Your task to perform on an android device: open the mobile data screen to see how much data has been used Image 0: 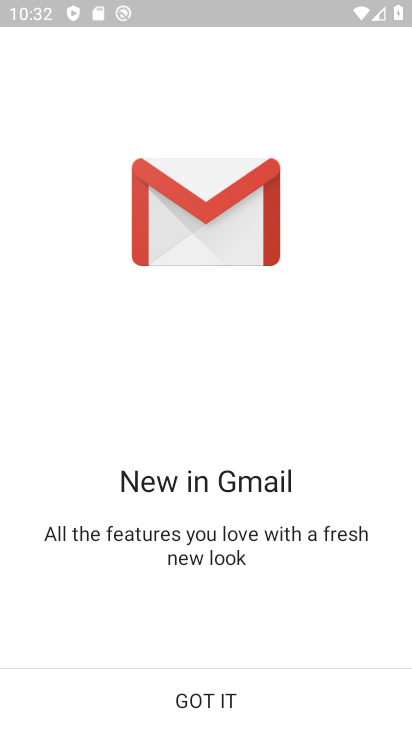
Step 0: press home button
Your task to perform on an android device: open the mobile data screen to see how much data has been used Image 1: 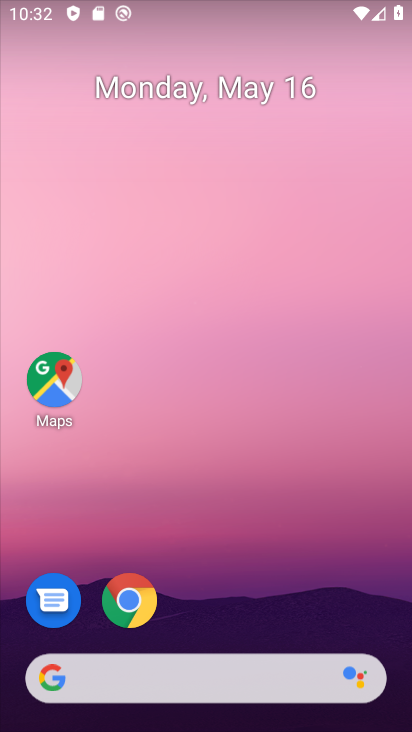
Step 1: drag from (160, 620) to (233, 232)
Your task to perform on an android device: open the mobile data screen to see how much data has been used Image 2: 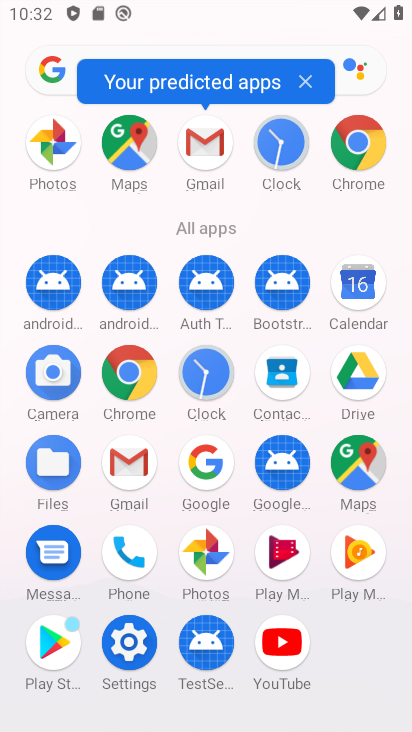
Step 2: click (132, 642)
Your task to perform on an android device: open the mobile data screen to see how much data has been used Image 3: 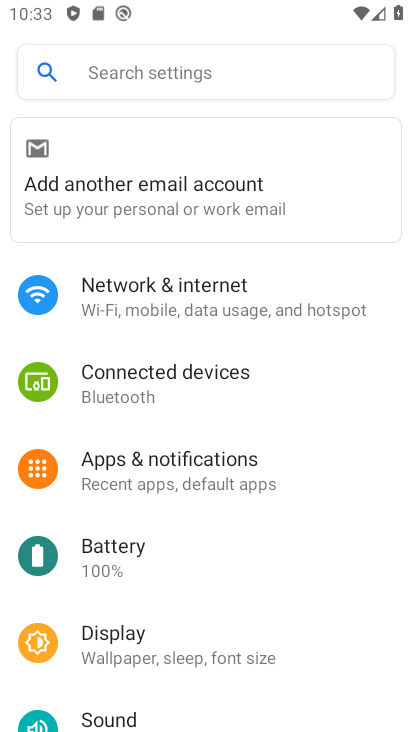
Step 3: click (211, 291)
Your task to perform on an android device: open the mobile data screen to see how much data has been used Image 4: 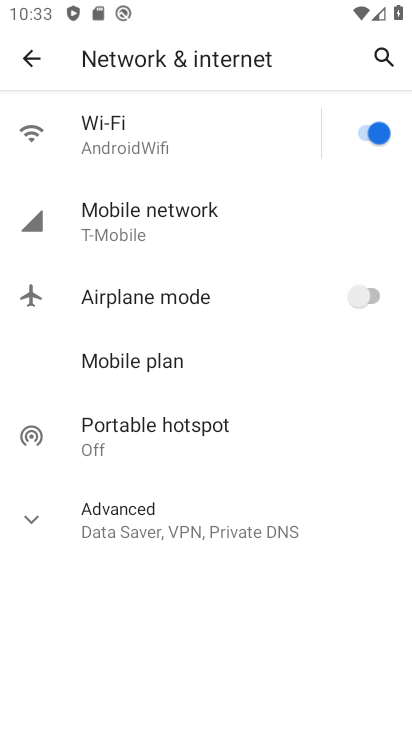
Step 4: click (176, 222)
Your task to perform on an android device: open the mobile data screen to see how much data has been used Image 5: 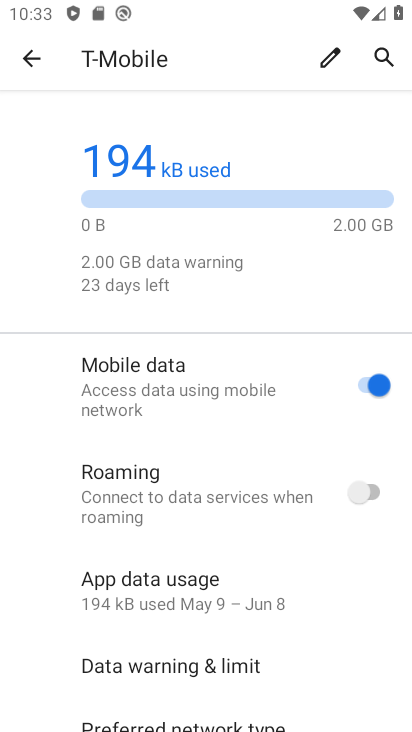
Step 5: task complete